Your task to perform on an android device: Go to eBay Image 0: 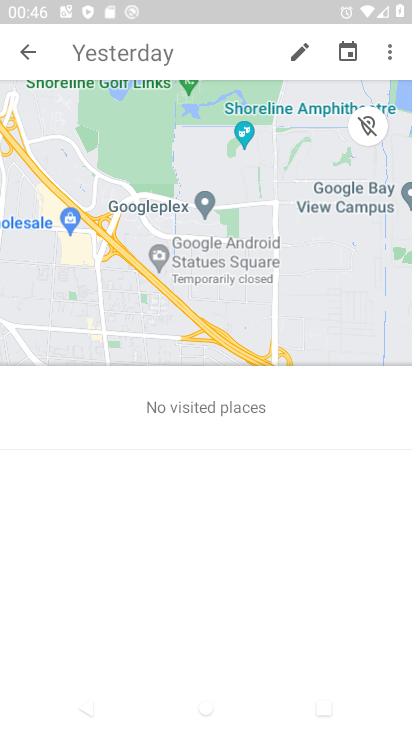
Step 0: press home button
Your task to perform on an android device: Go to eBay Image 1: 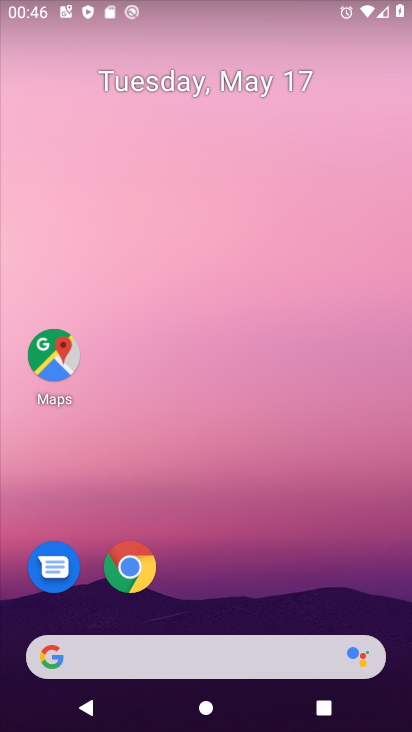
Step 1: click (129, 571)
Your task to perform on an android device: Go to eBay Image 2: 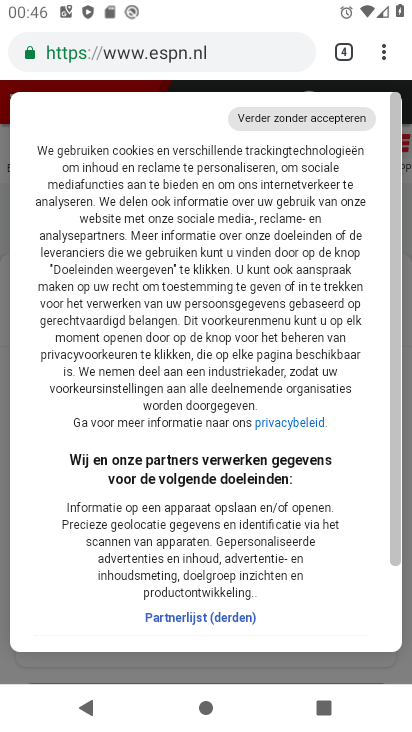
Step 2: click (374, 50)
Your task to perform on an android device: Go to eBay Image 3: 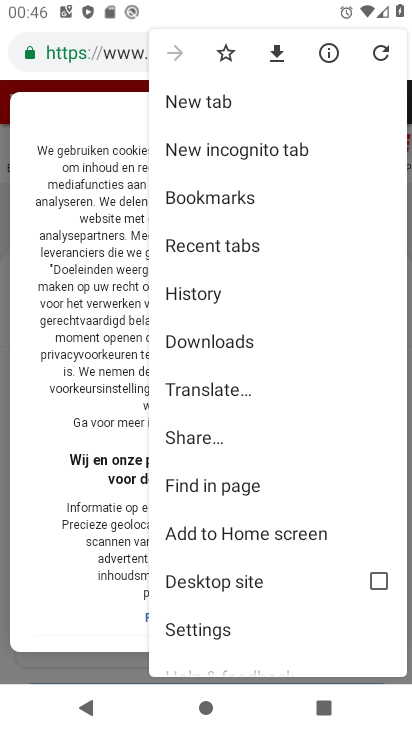
Step 3: click (206, 98)
Your task to perform on an android device: Go to eBay Image 4: 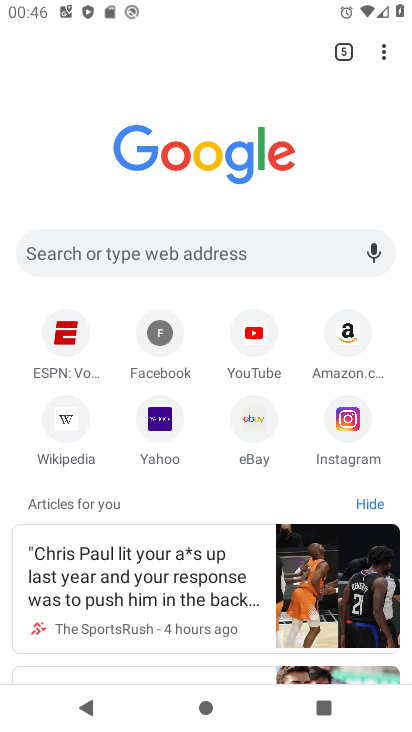
Step 4: click (243, 414)
Your task to perform on an android device: Go to eBay Image 5: 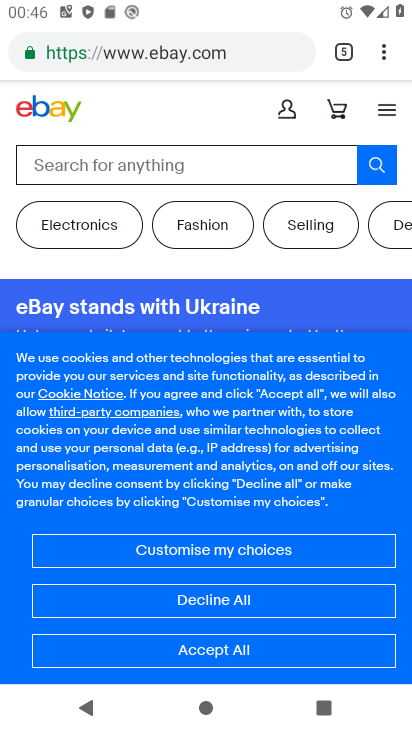
Step 5: task complete